Your task to perform on an android device: Go to accessibility settings Image 0: 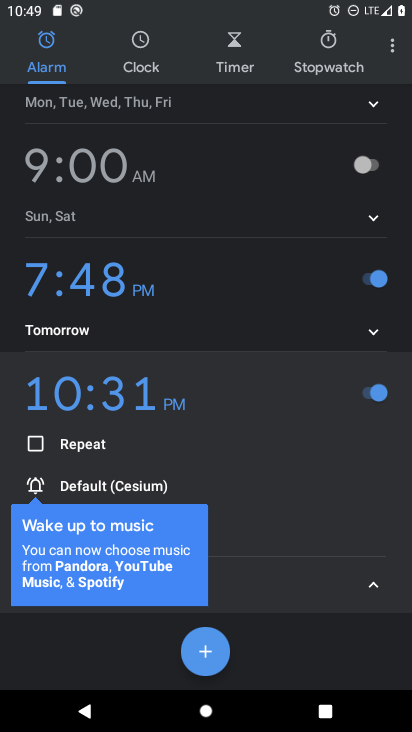
Step 0: press home button
Your task to perform on an android device: Go to accessibility settings Image 1: 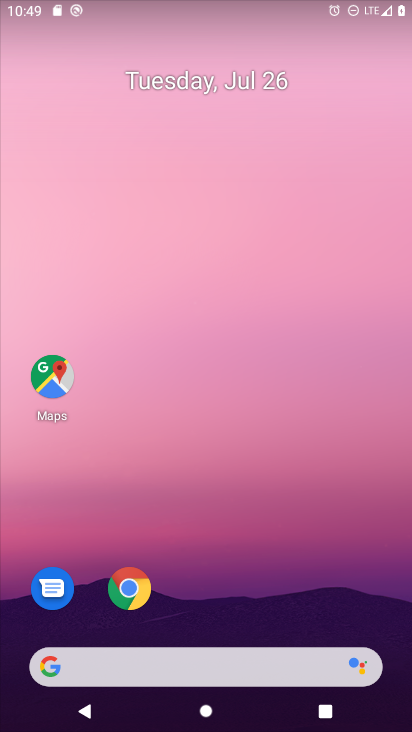
Step 1: drag from (213, 574) to (214, 104)
Your task to perform on an android device: Go to accessibility settings Image 2: 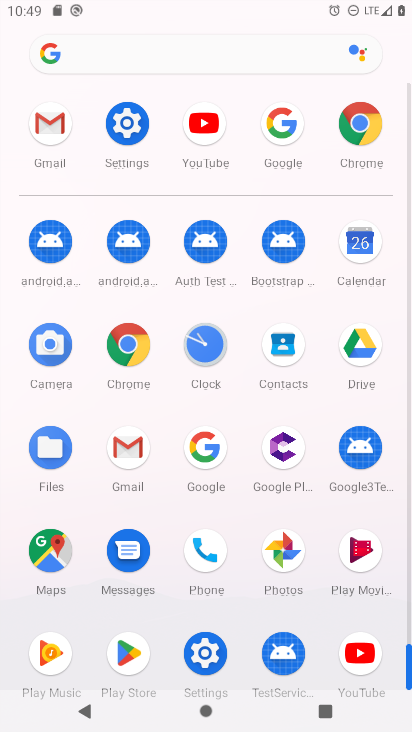
Step 2: click (136, 153)
Your task to perform on an android device: Go to accessibility settings Image 3: 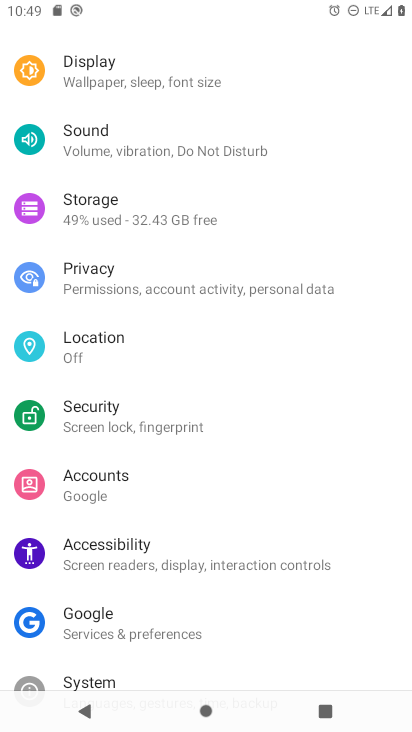
Step 3: click (107, 557)
Your task to perform on an android device: Go to accessibility settings Image 4: 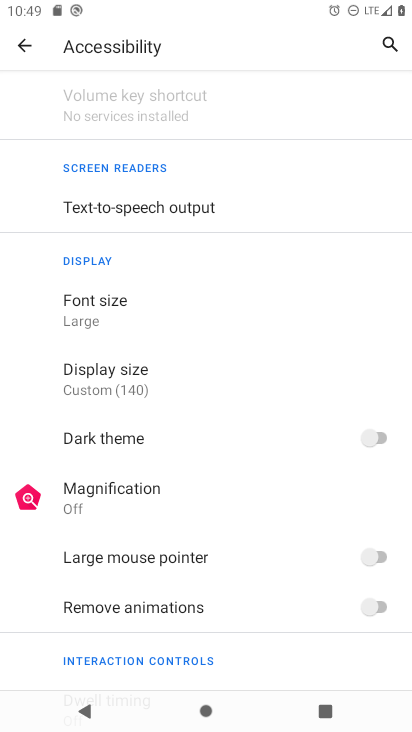
Step 4: task complete